Your task to perform on an android device: toggle airplane mode Image 0: 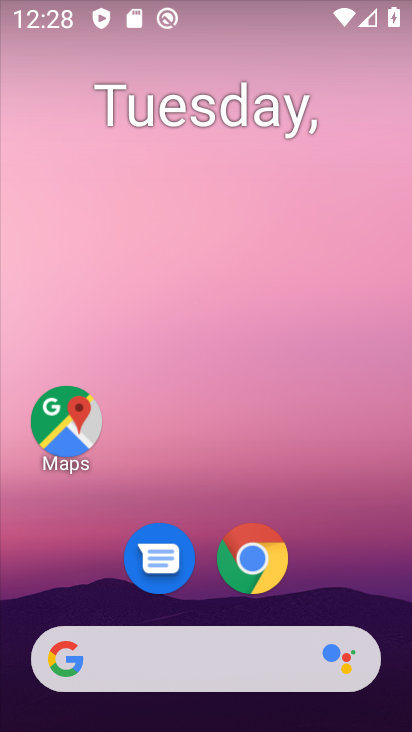
Step 0: drag from (72, 621) to (210, 127)
Your task to perform on an android device: toggle airplane mode Image 1: 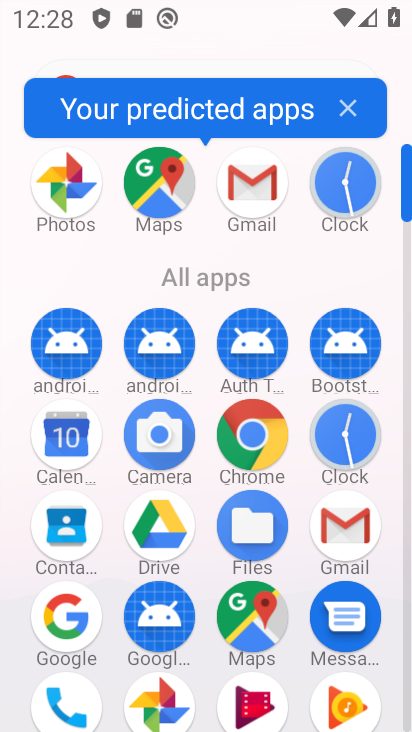
Step 1: drag from (187, 634) to (251, 368)
Your task to perform on an android device: toggle airplane mode Image 2: 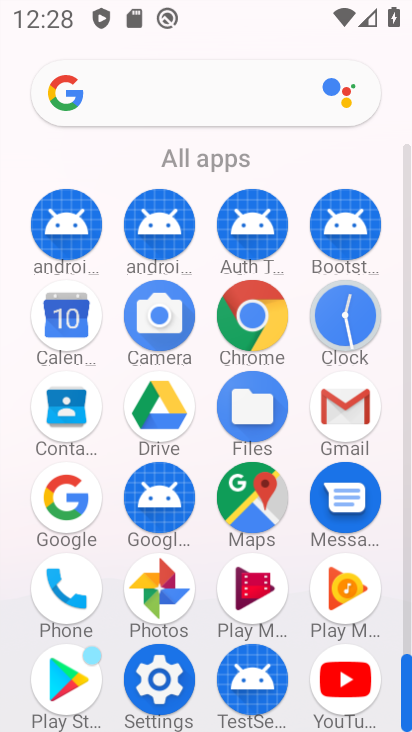
Step 2: click (160, 691)
Your task to perform on an android device: toggle airplane mode Image 3: 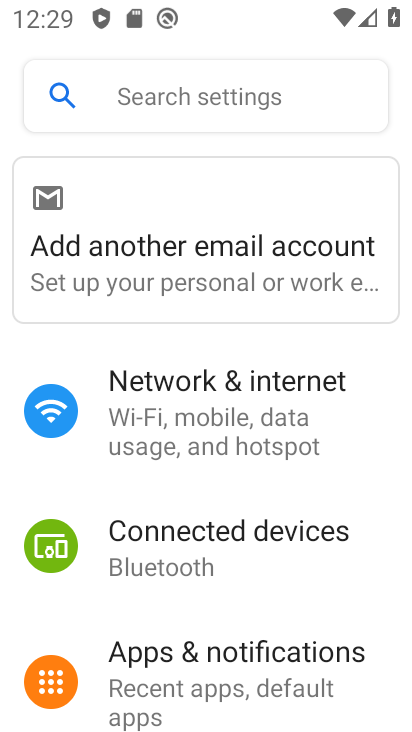
Step 3: click (273, 408)
Your task to perform on an android device: toggle airplane mode Image 4: 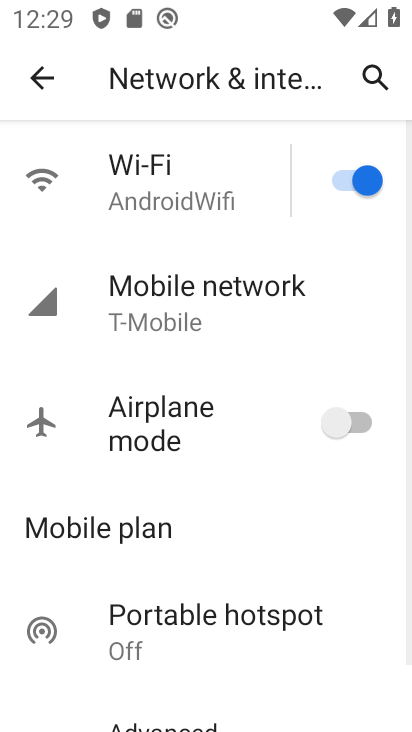
Step 4: click (394, 422)
Your task to perform on an android device: toggle airplane mode Image 5: 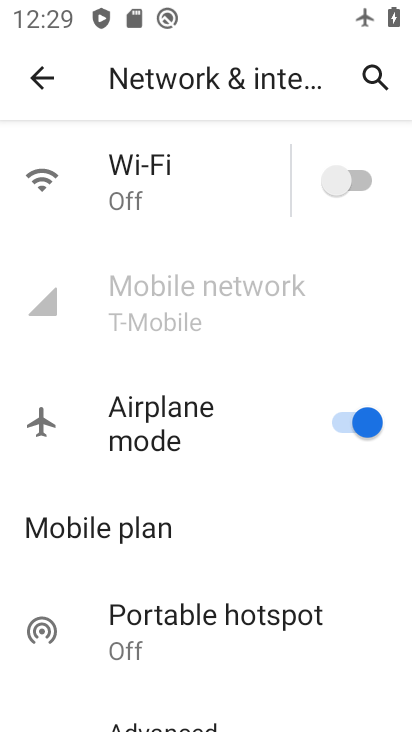
Step 5: task complete